Your task to perform on an android device: add a contact Image 0: 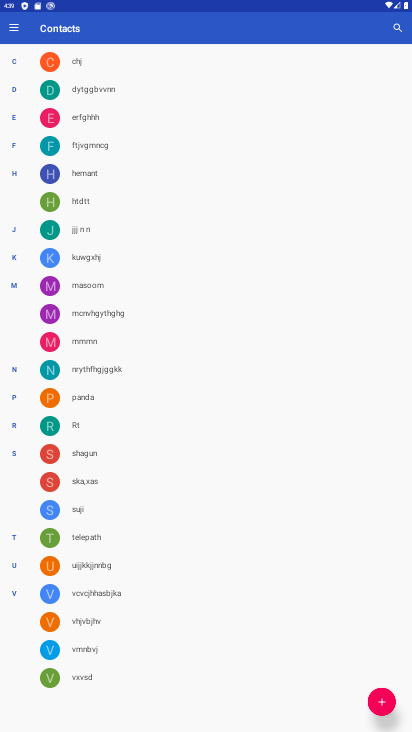
Step 0: press home button
Your task to perform on an android device: add a contact Image 1: 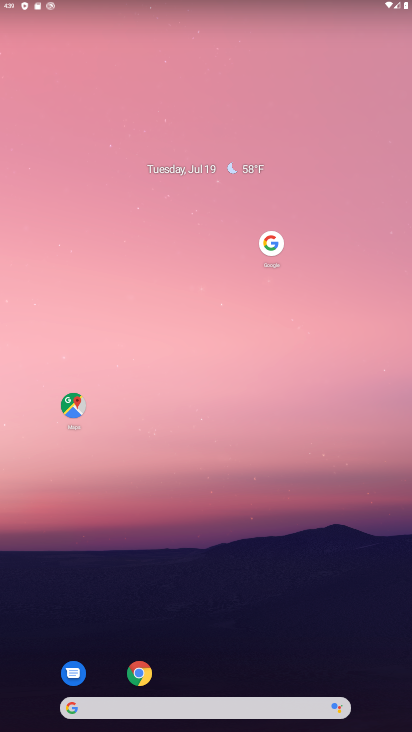
Step 1: drag from (264, 645) to (205, 157)
Your task to perform on an android device: add a contact Image 2: 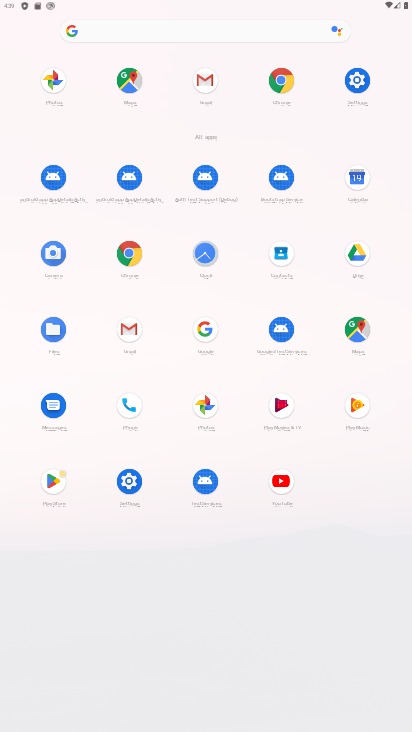
Step 2: click (283, 256)
Your task to perform on an android device: add a contact Image 3: 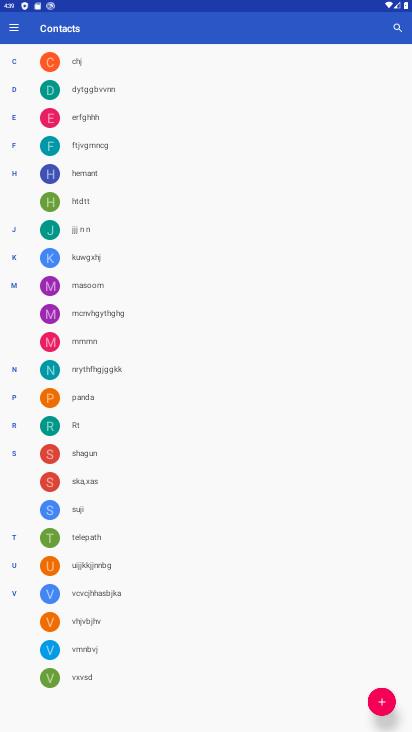
Step 3: click (385, 698)
Your task to perform on an android device: add a contact Image 4: 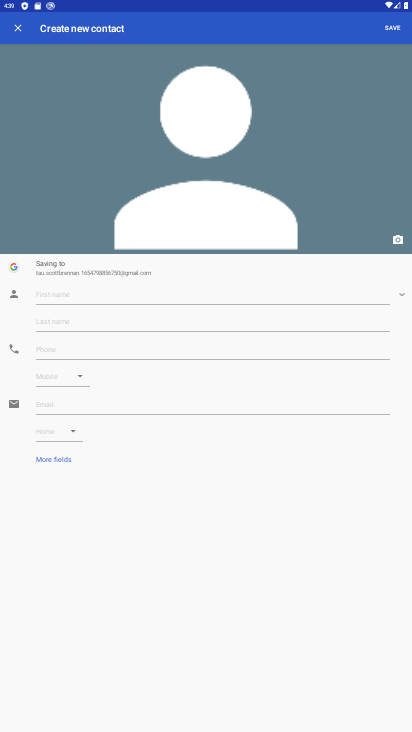
Step 4: click (180, 306)
Your task to perform on an android device: add a contact Image 5: 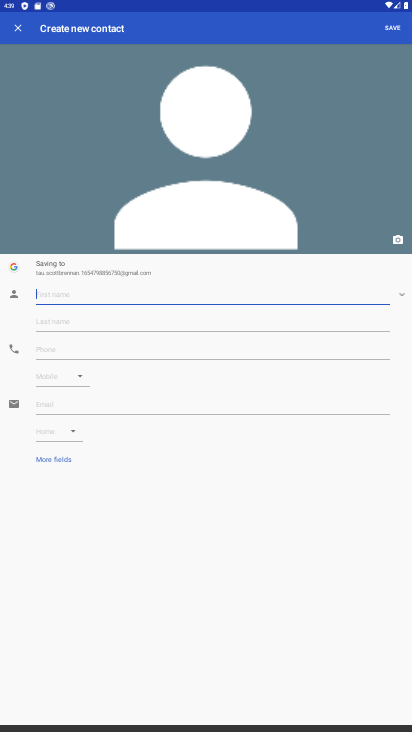
Step 5: click (174, 295)
Your task to perform on an android device: add a contact Image 6: 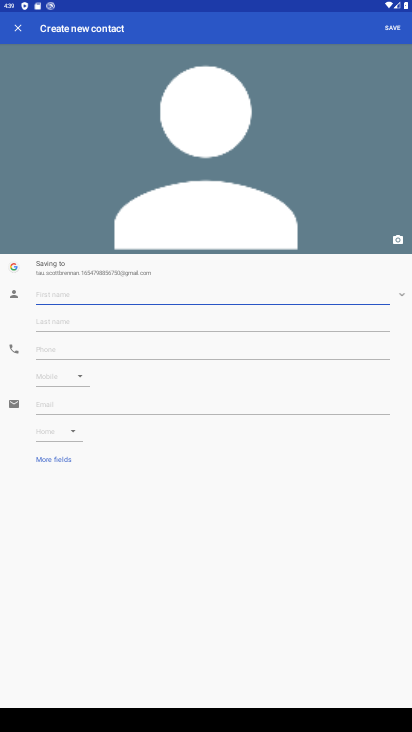
Step 6: type "fsfffdfdfffd"
Your task to perform on an android device: add a contact Image 7: 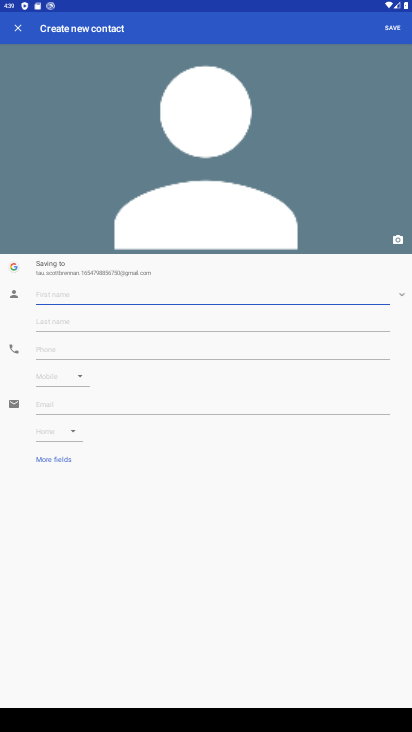
Step 7: click (56, 287)
Your task to perform on an android device: add a contact Image 8: 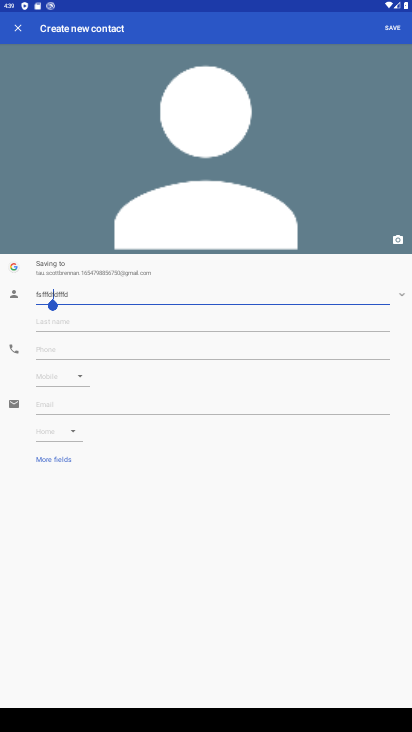
Step 8: click (83, 346)
Your task to perform on an android device: add a contact Image 9: 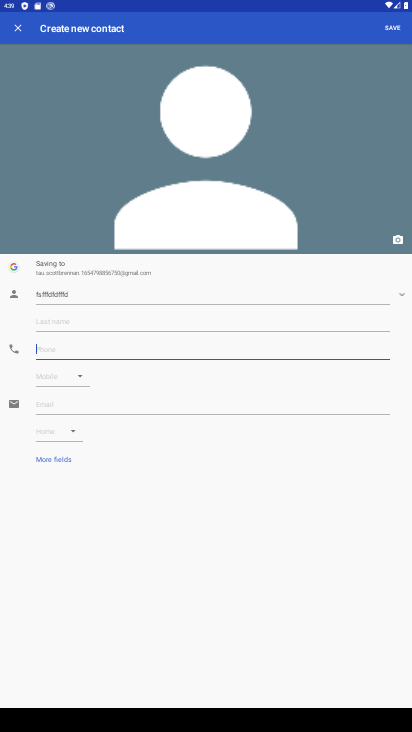
Step 9: type "3232233223"
Your task to perform on an android device: add a contact Image 10: 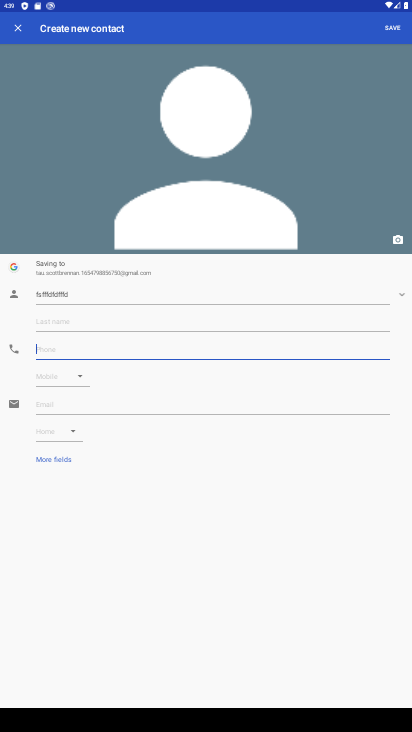
Step 10: click (67, 341)
Your task to perform on an android device: add a contact Image 11: 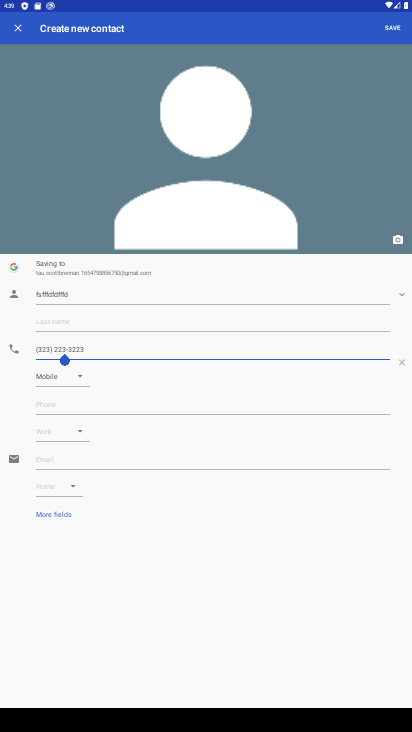
Step 11: click (396, 30)
Your task to perform on an android device: add a contact Image 12: 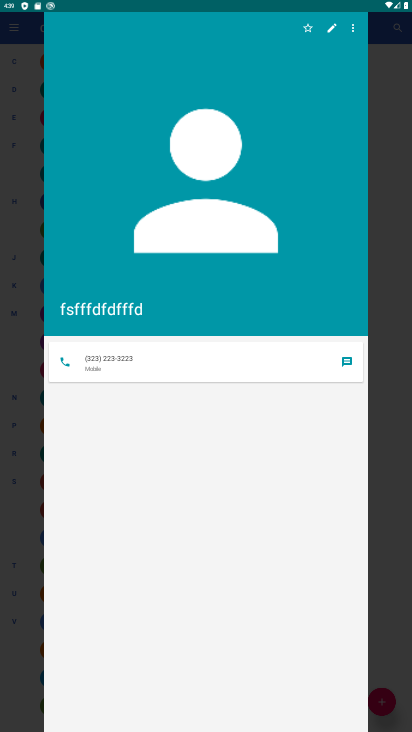
Step 12: task complete